Your task to perform on an android device: Open the calendar app, open the side menu, and click the "Day" option Image 0: 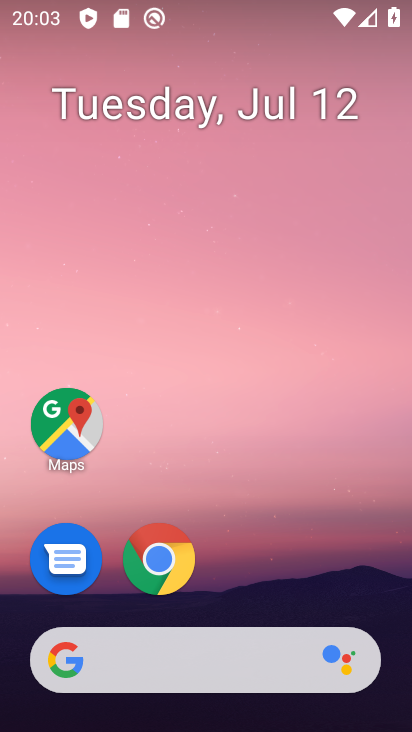
Step 0: drag from (356, 563) to (342, 89)
Your task to perform on an android device: Open the calendar app, open the side menu, and click the "Day" option Image 1: 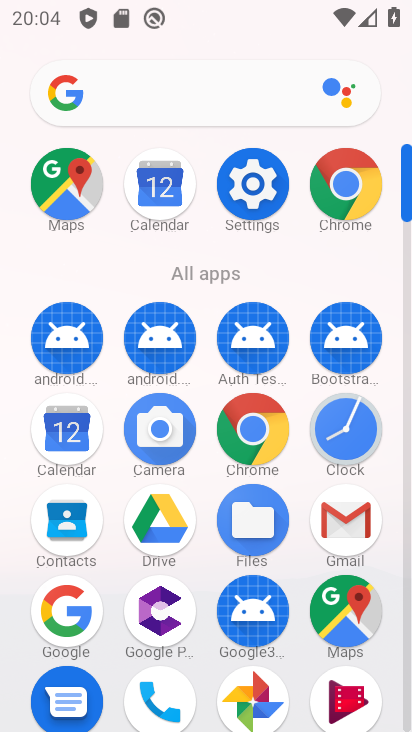
Step 1: click (80, 432)
Your task to perform on an android device: Open the calendar app, open the side menu, and click the "Day" option Image 2: 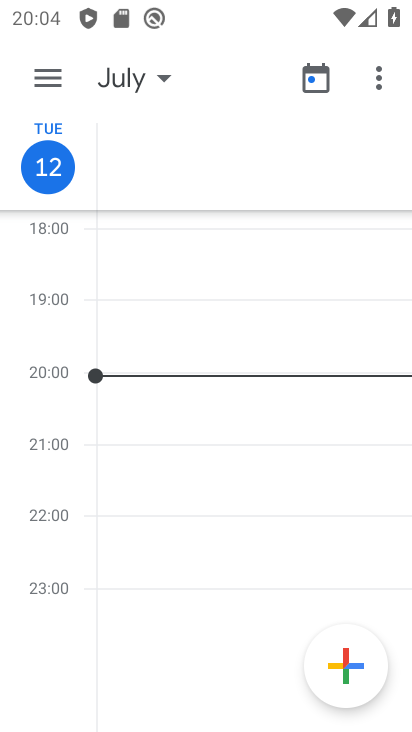
Step 2: click (55, 79)
Your task to perform on an android device: Open the calendar app, open the side menu, and click the "Day" option Image 3: 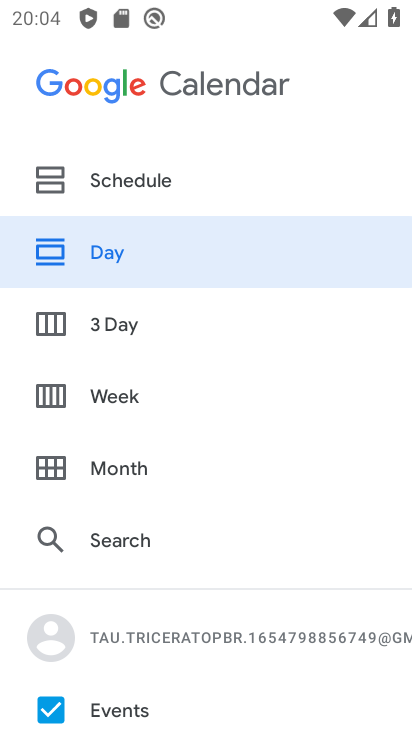
Step 3: task complete